Your task to perform on an android device: Open settings on Google Maps Image 0: 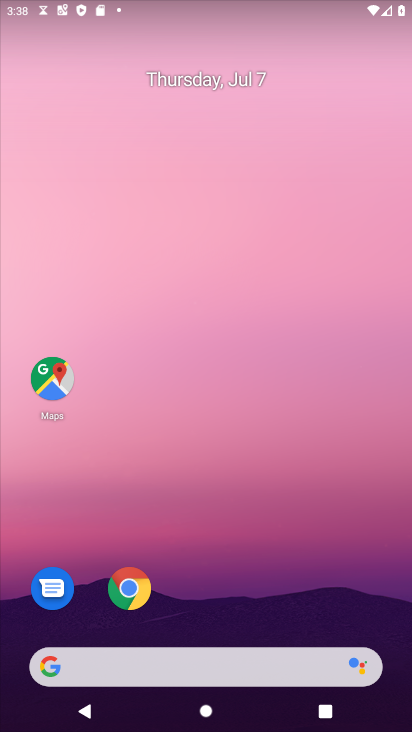
Step 0: click (49, 379)
Your task to perform on an android device: Open settings on Google Maps Image 1: 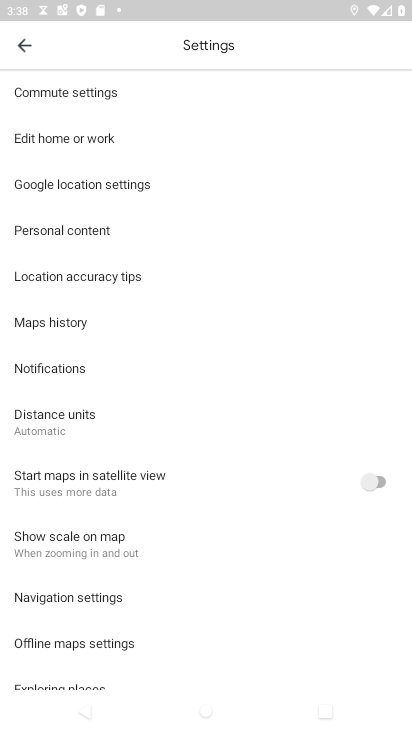
Step 1: task complete